Your task to perform on an android device: Open internet settings Image 0: 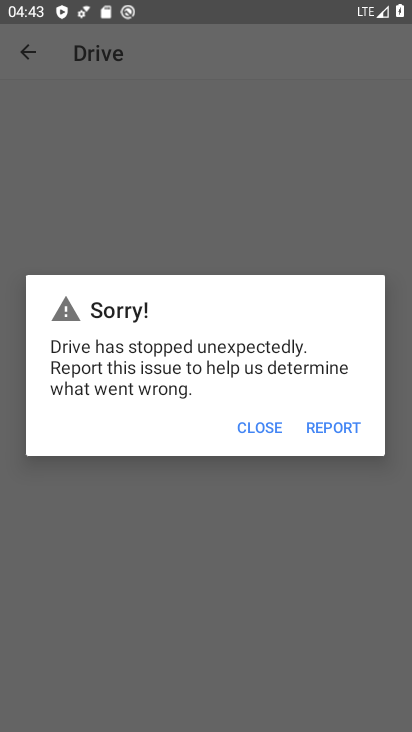
Step 0: press back button
Your task to perform on an android device: Open internet settings Image 1: 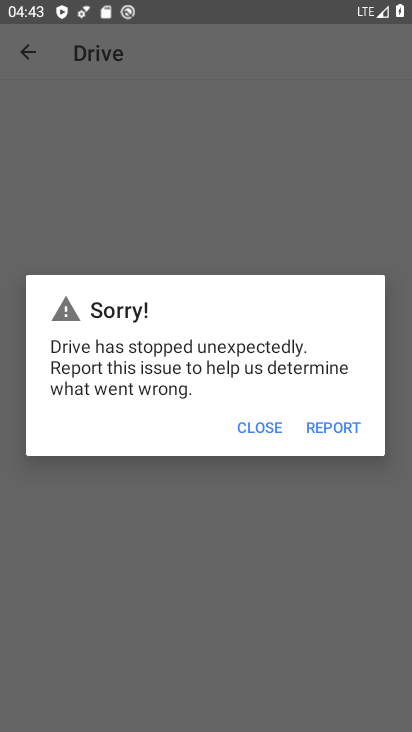
Step 1: press home button
Your task to perform on an android device: Open internet settings Image 2: 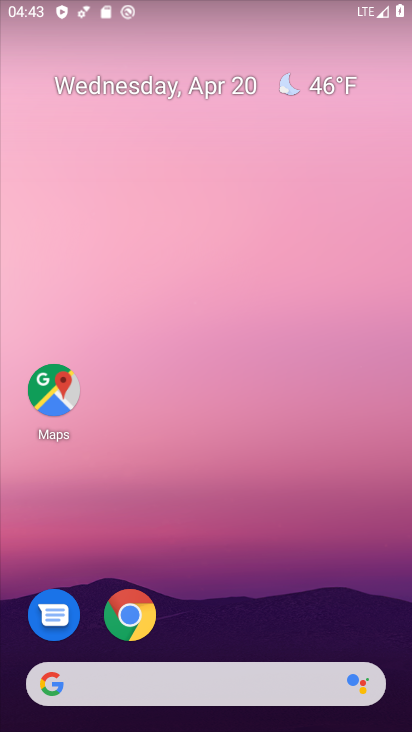
Step 2: drag from (192, 565) to (352, 0)
Your task to perform on an android device: Open internet settings Image 3: 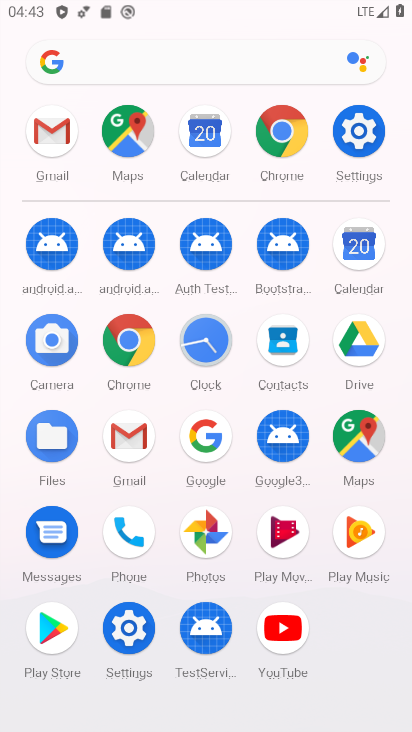
Step 3: click (359, 118)
Your task to perform on an android device: Open internet settings Image 4: 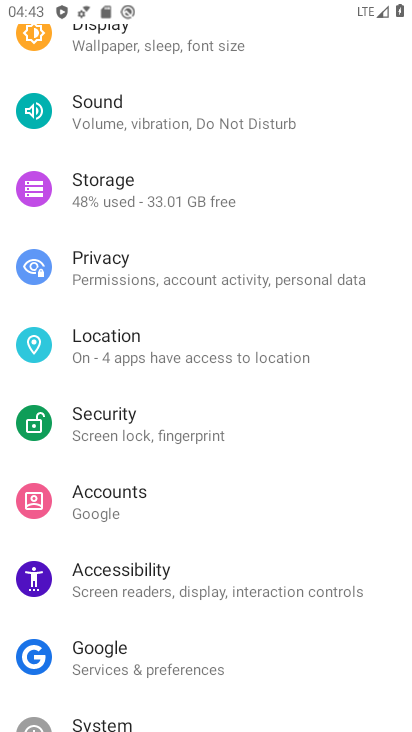
Step 4: drag from (244, 191) to (186, 579)
Your task to perform on an android device: Open internet settings Image 5: 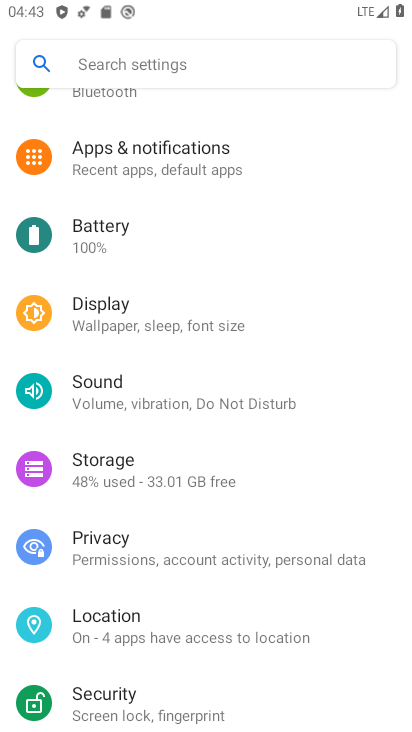
Step 5: drag from (207, 183) to (198, 669)
Your task to perform on an android device: Open internet settings Image 6: 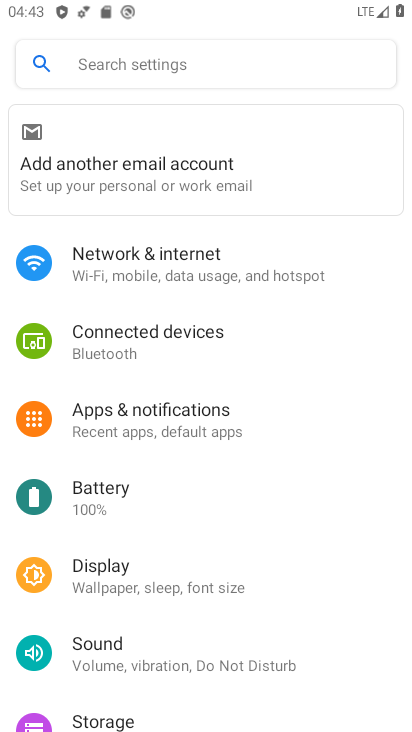
Step 6: click (196, 267)
Your task to perform on an android device: Open internet settings Image 7: 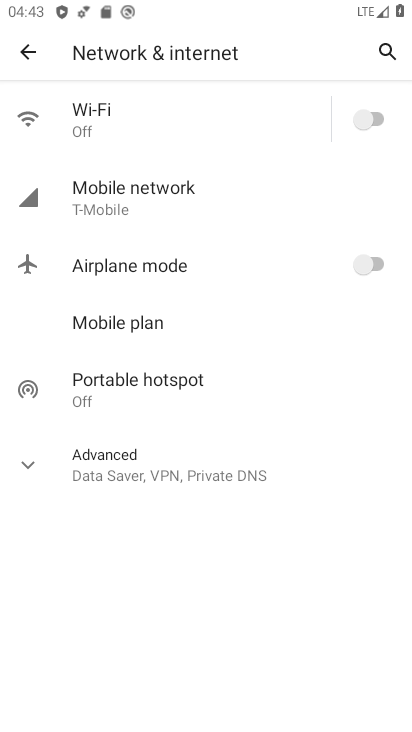
Step 7: task complete